Your task to perform on an android device: Search for Mexican restaurants on Maps Image 0: 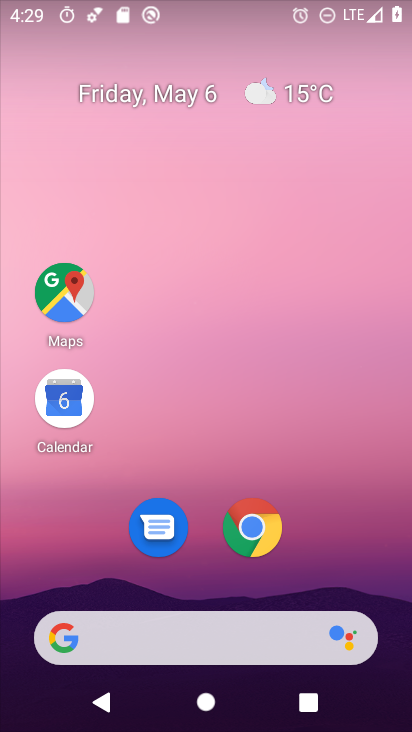
Step 0: drag from (334, 453) to (362, 89)
Your task to perform on an android device: Search for Mexican restaurants on Maps Image 1: 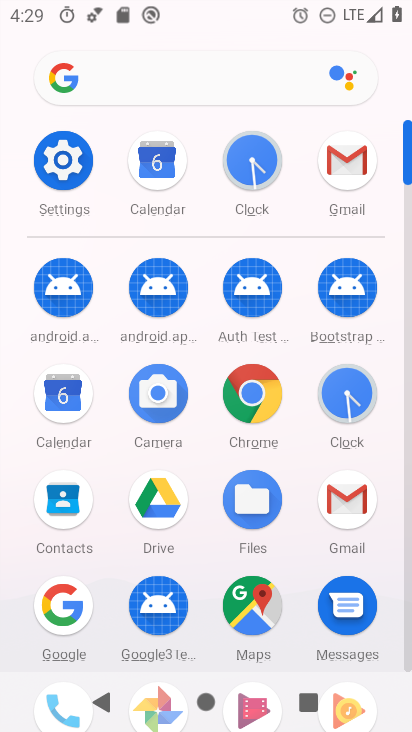
Step 1: click (254, 611)
Your task to perform on an android device: Search for Mexican restaurants on Maps Image 2: 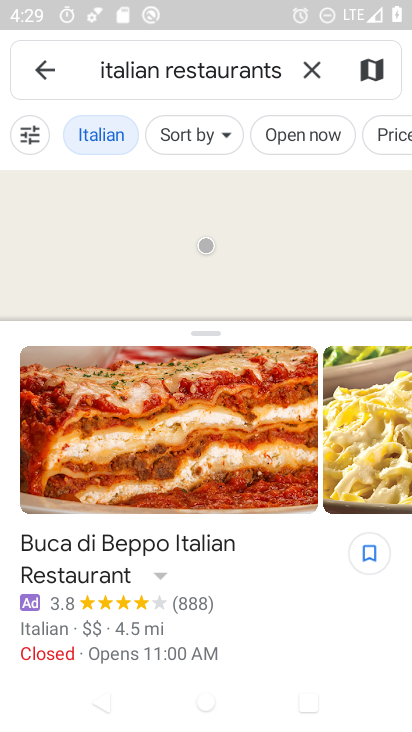
Step 2: click (225, 75)
Your task to perform on an android device: Search for Mexican restaurants on Maps Image 3: 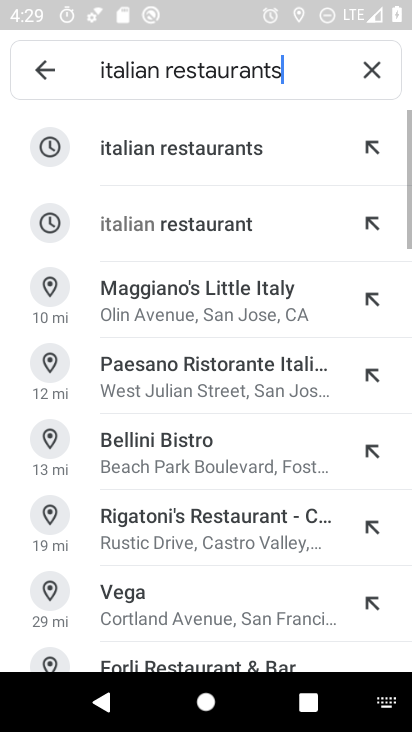
Step 3: click (371, 62)
Your task to perform on an android device: Search for Mexican restaurants on Maps Image 4: 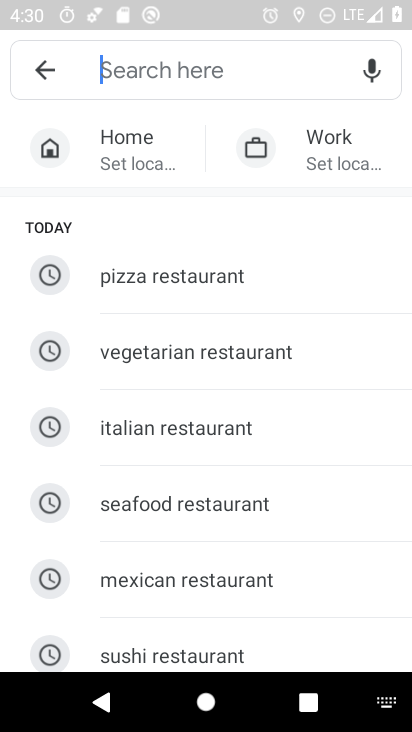
Step 4: type "Mexican restaurants"
Your task to perform on an android device: Search for Mexican restaurants on Maps Image 5: 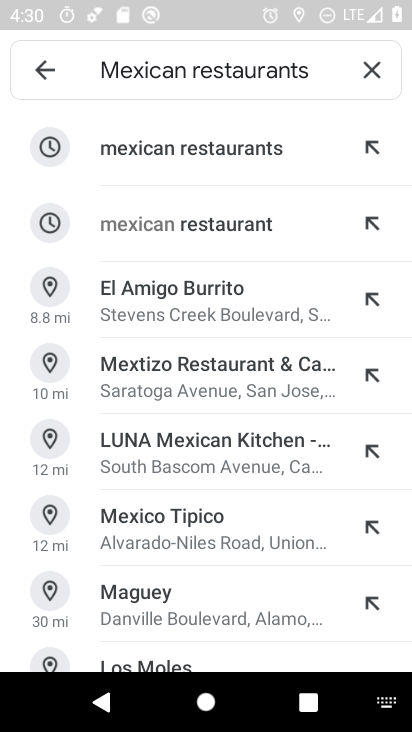
Step 5: click (201, 142)
Your task to perform on an android device: Search for Mexican restaurants on Maps Image 6: 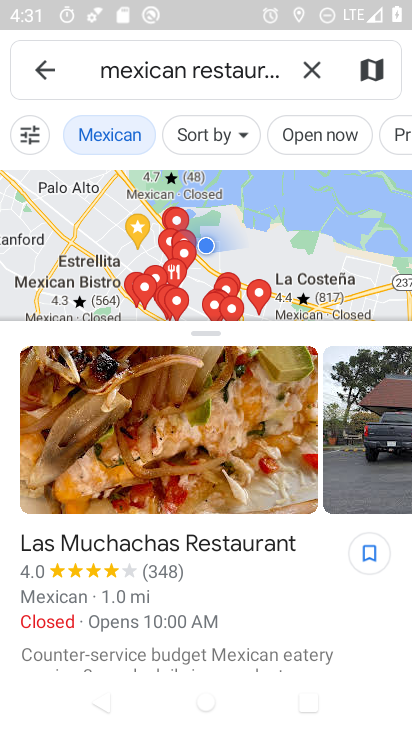
Step 6: task complete